Your task to perform on an android device: Turn on the flashlight Image 0: 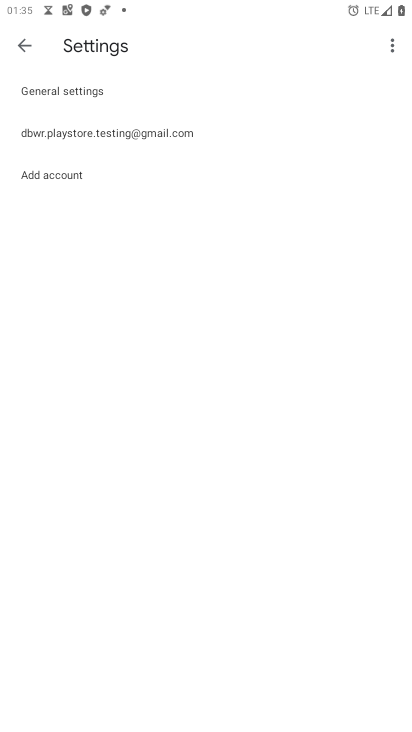
Step 0: press home button
Your task to perform on an android device: Turn on the flashlight Image 1: 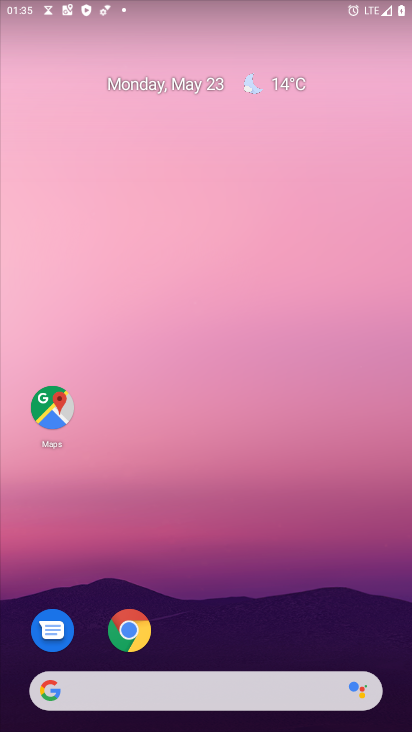
Step 1: task complete